Your task to perform on an android device: change your default location settings in chrome Image 0: 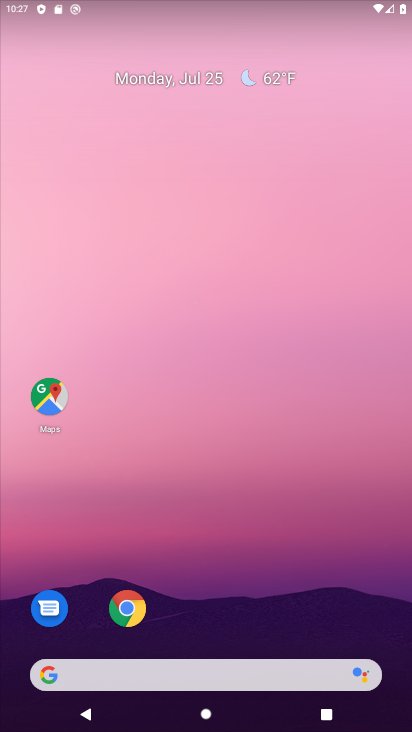
Step 0: drag from (203, 667) to (177, 178)
Your task to perform on an android device: change your default location settings in chrome Image 1: 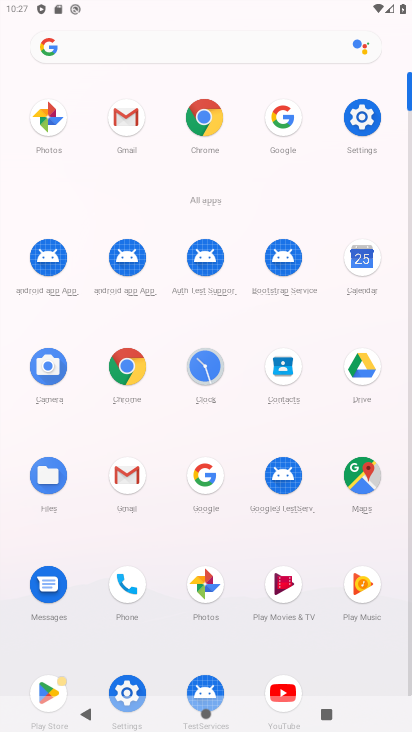
Step 1: click (214, 123)
Your task to perform on an android device: change your default location settings in chrome Image 2: 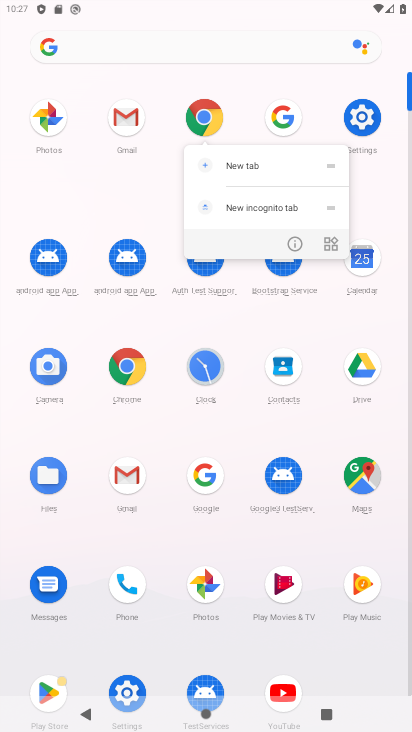
Step 2: click (214, 123)
Your task to perform on an android device: change your default location settings in chrome Image 3: 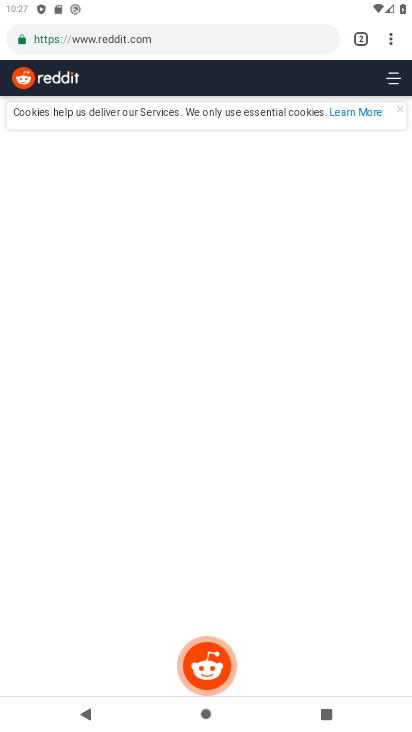
Step 3: click (387, 38)
Your task to perform on an android device: change your default location settings in chrome Image 4: 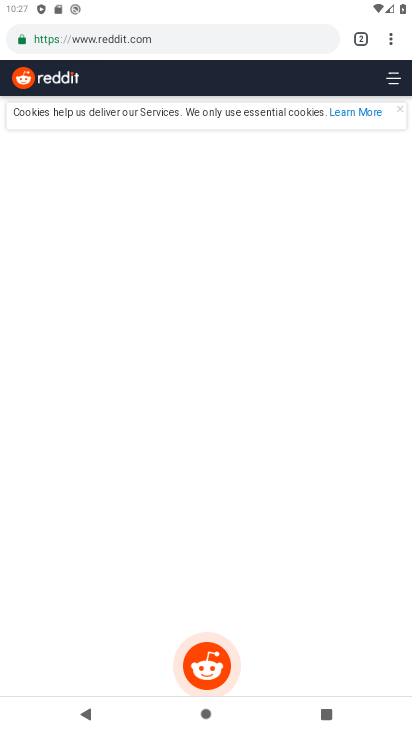
Step 4: click (393, 43)
Your task to perform on an android device: change your default location settings in chrome Image 5: 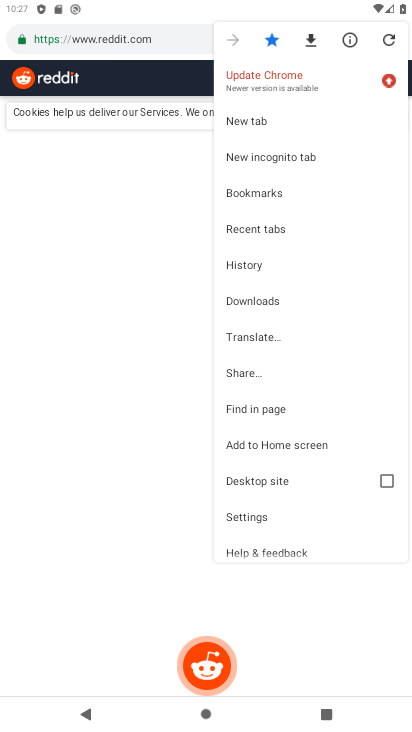
Step 5: click (257, 514)
Your task to perform on an android device: change your default location settings in chrome Image 6: 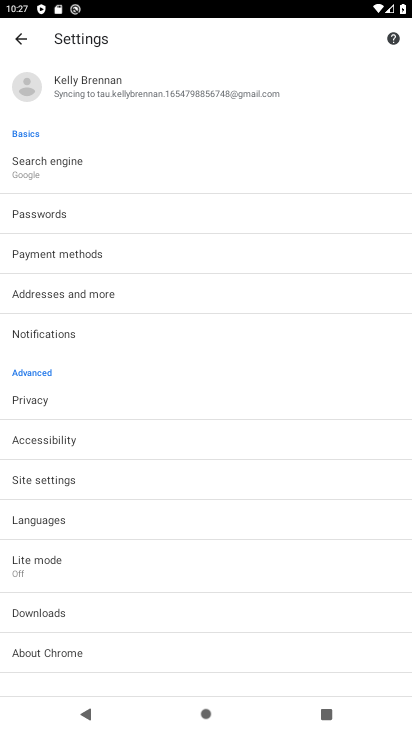
Step 6: click (29, 475)
Your task to perform on an android device: change your default location settings in chrome Image 7: 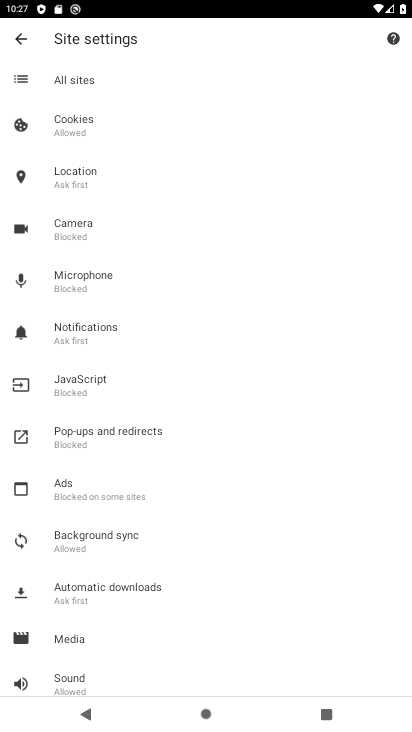
Step 7: click (72, 176)
Your task to perform on an android device: change your default location settings in chrome Image 8: 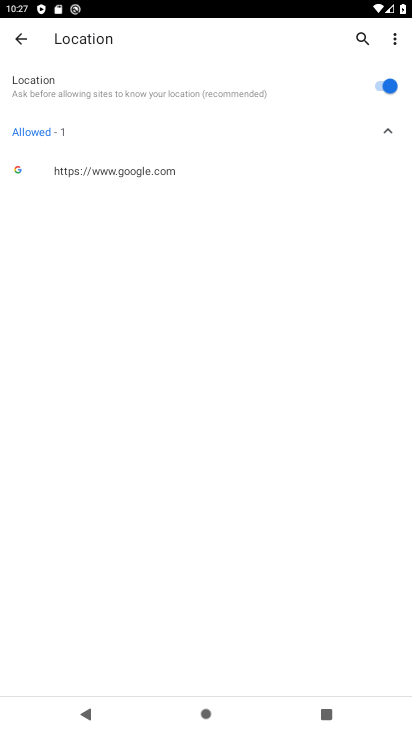
Step 8: click (382, 88)
Your task to perform on an android device: change your default location settings in chrome Image 9: 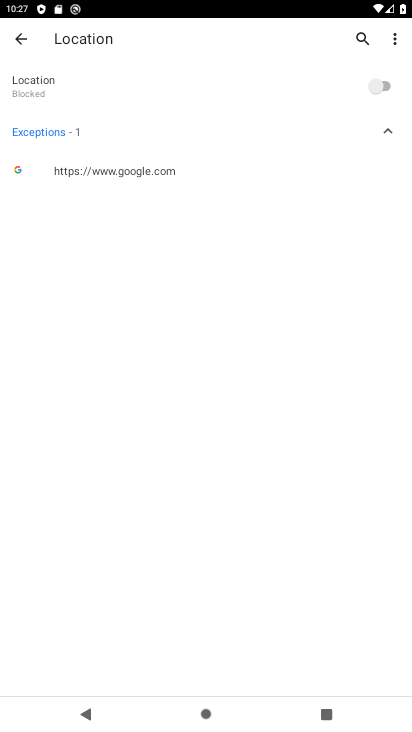
Step 9: task complete